Your task to perform on an android device: change the clock display to digital Image 0: 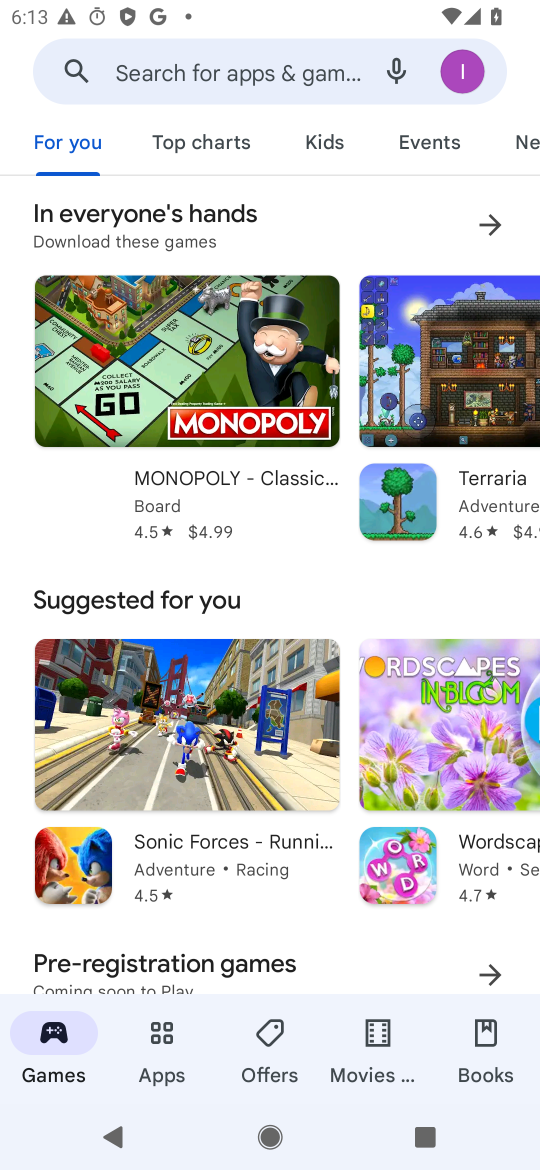
Step 0: press home button
Your task to perform on an android device: change the clock display to digital Image 1: 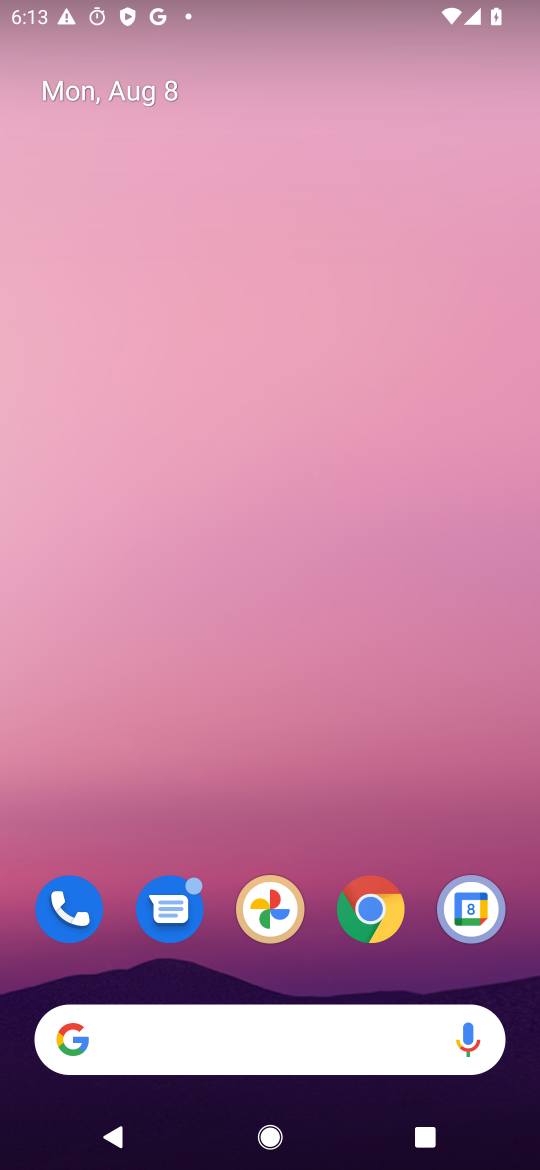
Step 1: drag from (251, 1058) to (385, 193)
Your task to perform on an android device: change the clock display to digital Image 2: 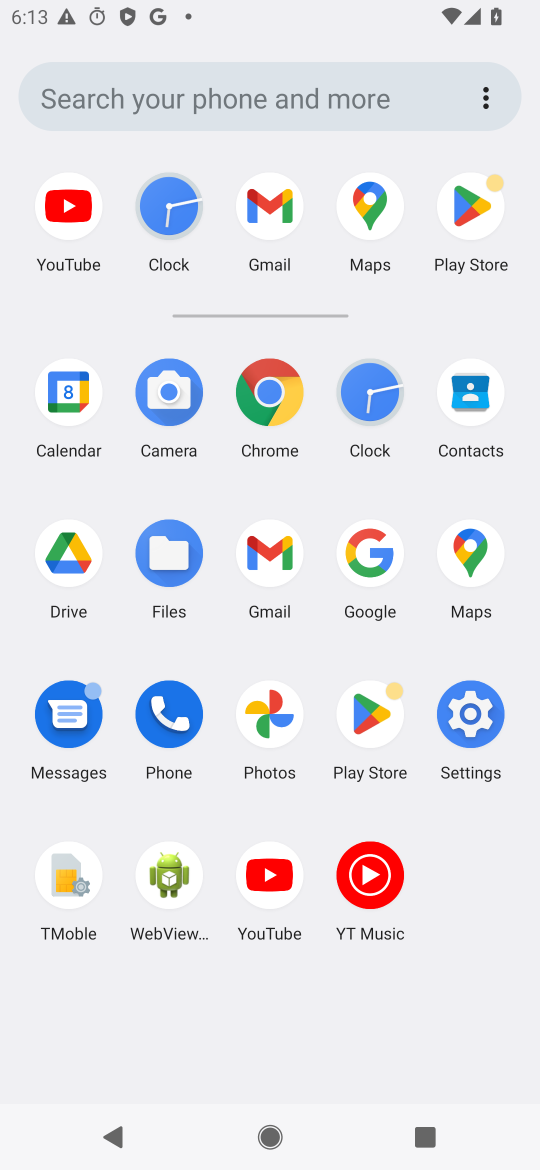
Step 2: click (377, 382)
Your task to perform on an android device: change the clock display to digital Image 3: 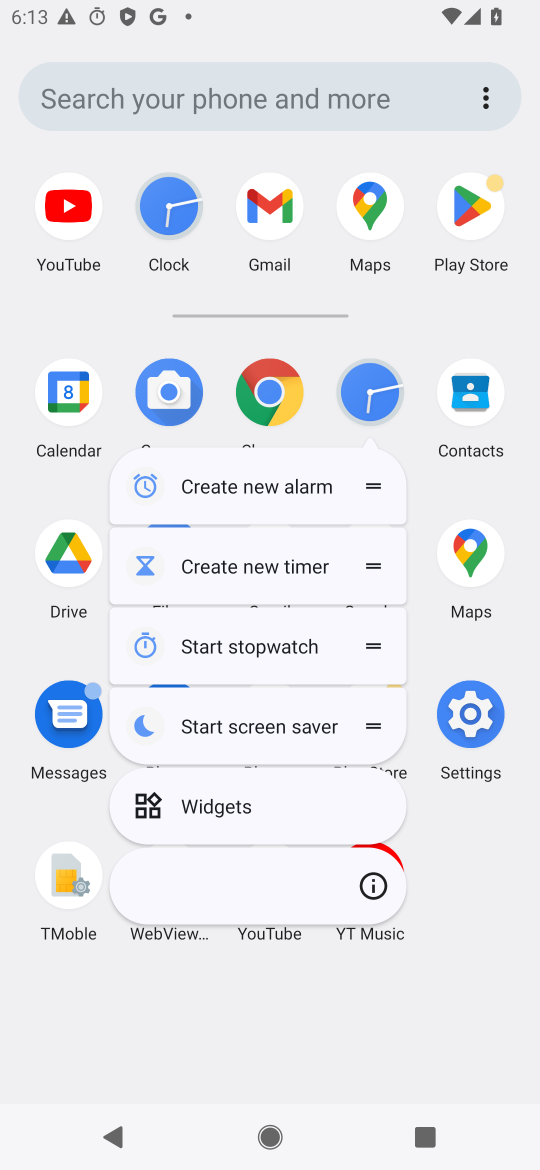
Step 3: click (376, 382)
Your task to perform on an android device: change the clock display to digital Image 4: 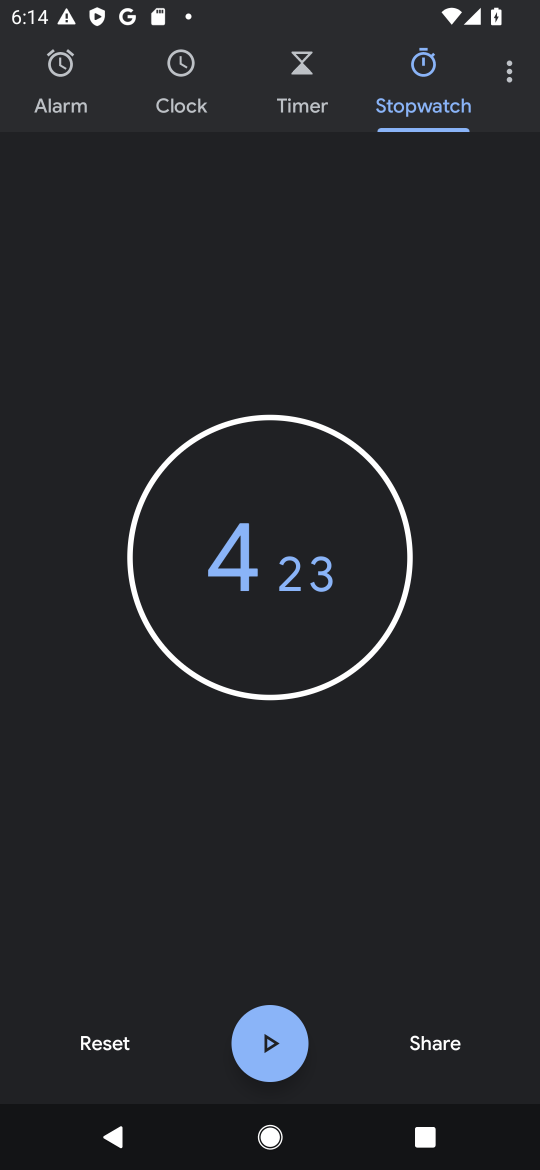
Step 4: click (510, 72)
Your task to perform on an android device: change the clock display to digital Image 5: 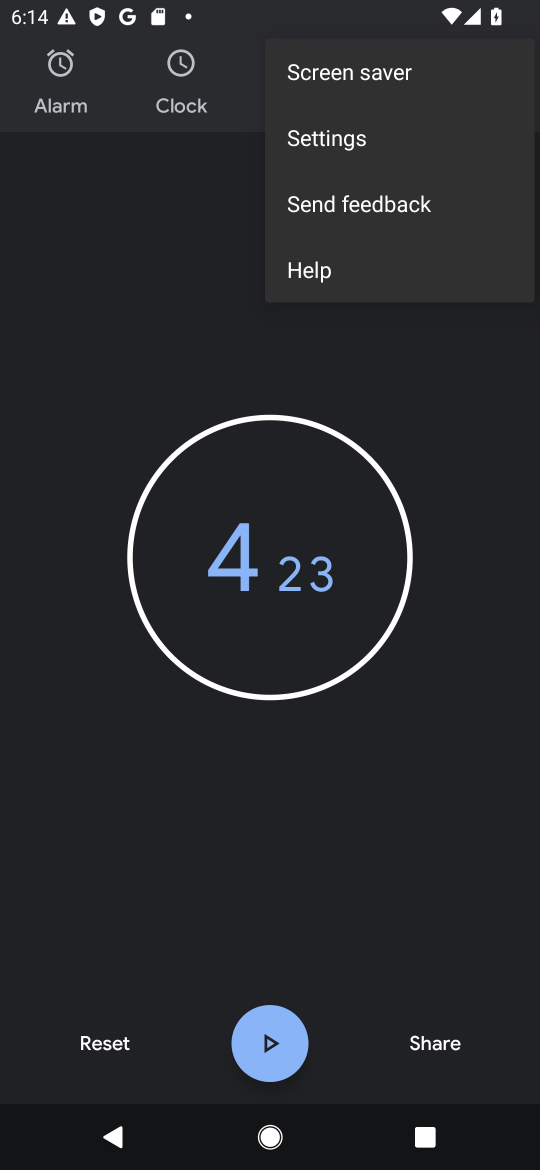
Step 5: click (379, 138)
Your task to perform on an android device: change the clock display to digital Image 6: 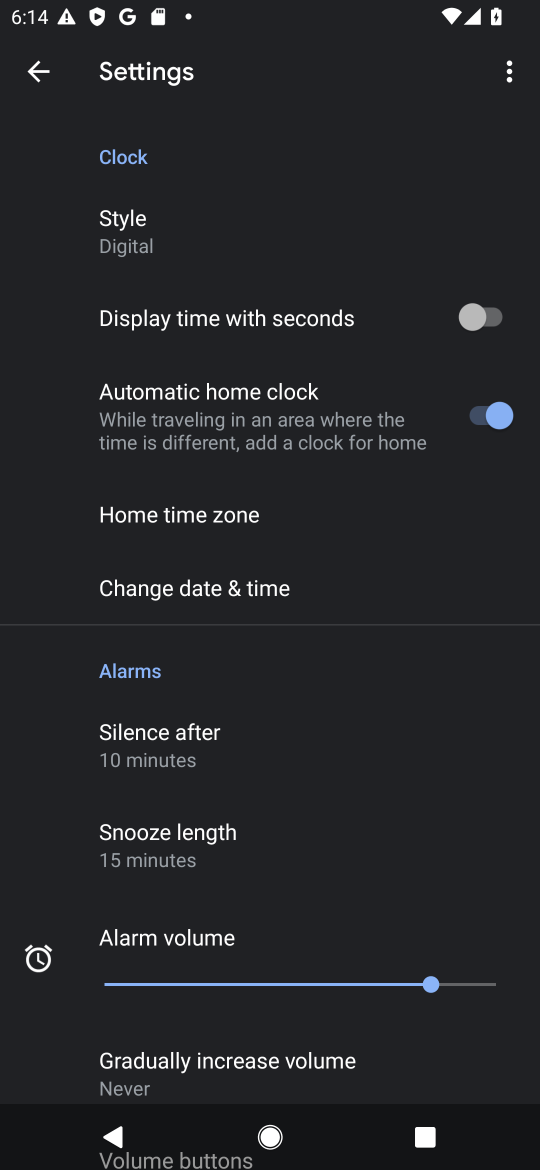
Step 6: click (141, 237)
Your task to perform on an android device: change the clock display to digital Image 7: 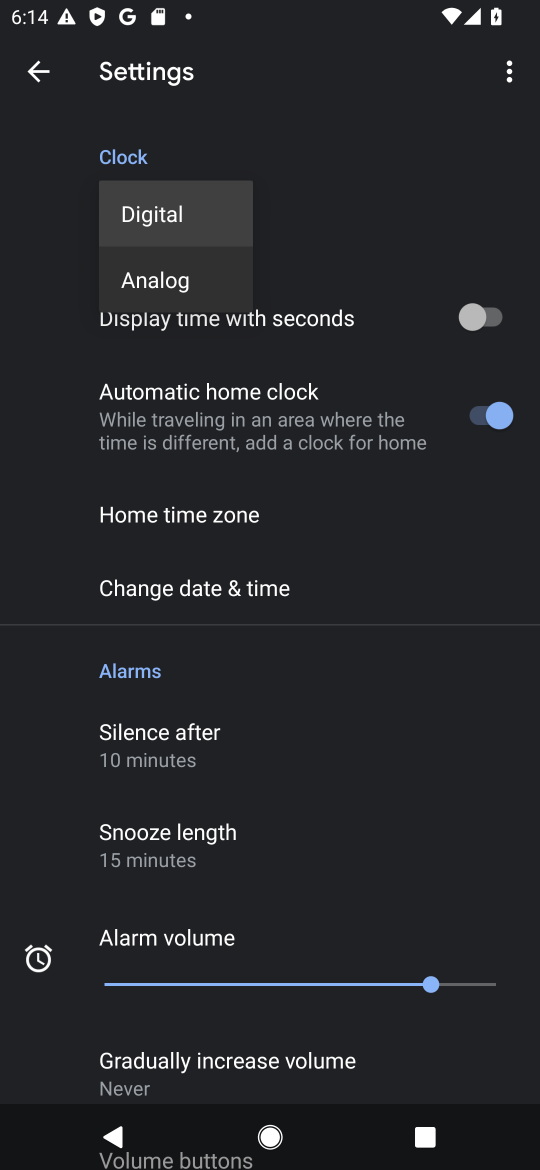
Step 7: task complete